Your task to perform on an android device: What's the latest video from Game Informer? Image 0: 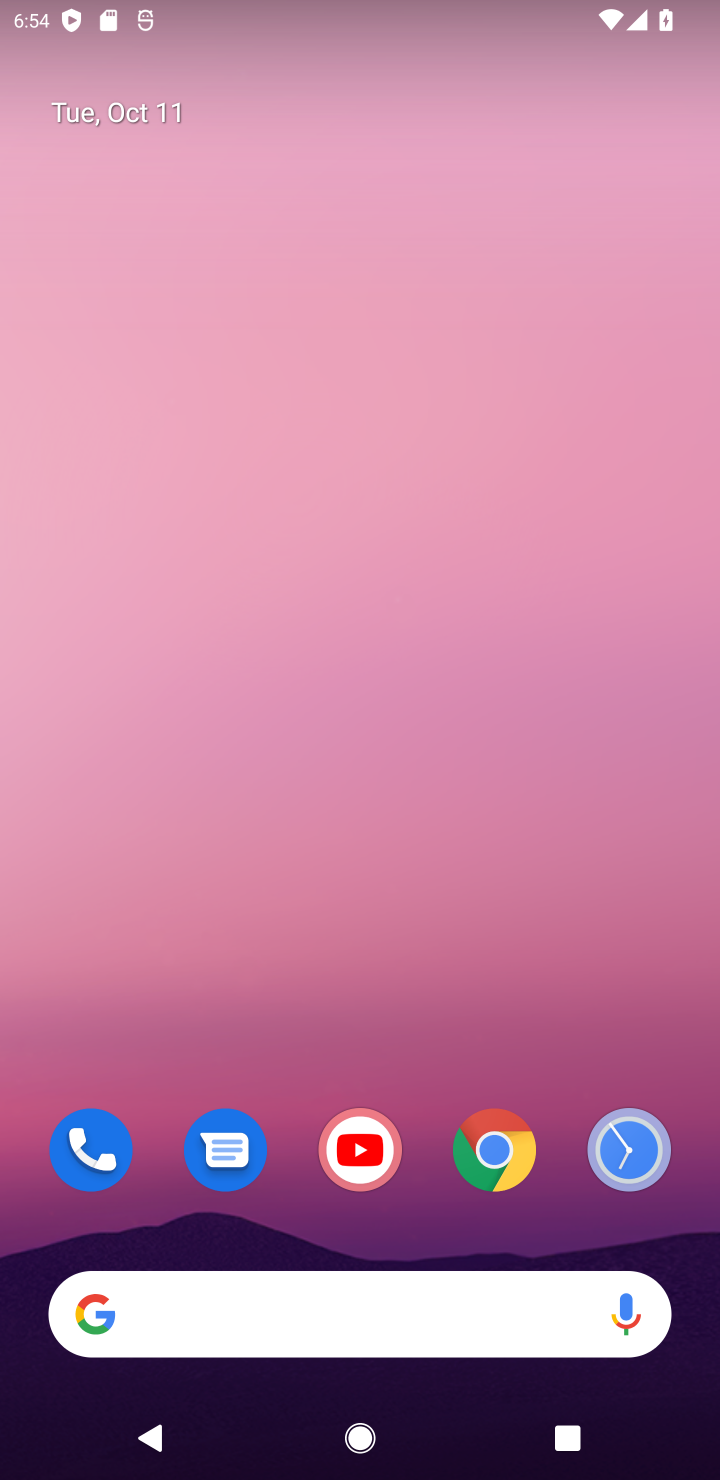
Step 0: click (366, 1158)
Your task to perform on an android device: What's the latest video from Game Informer? Image 1: 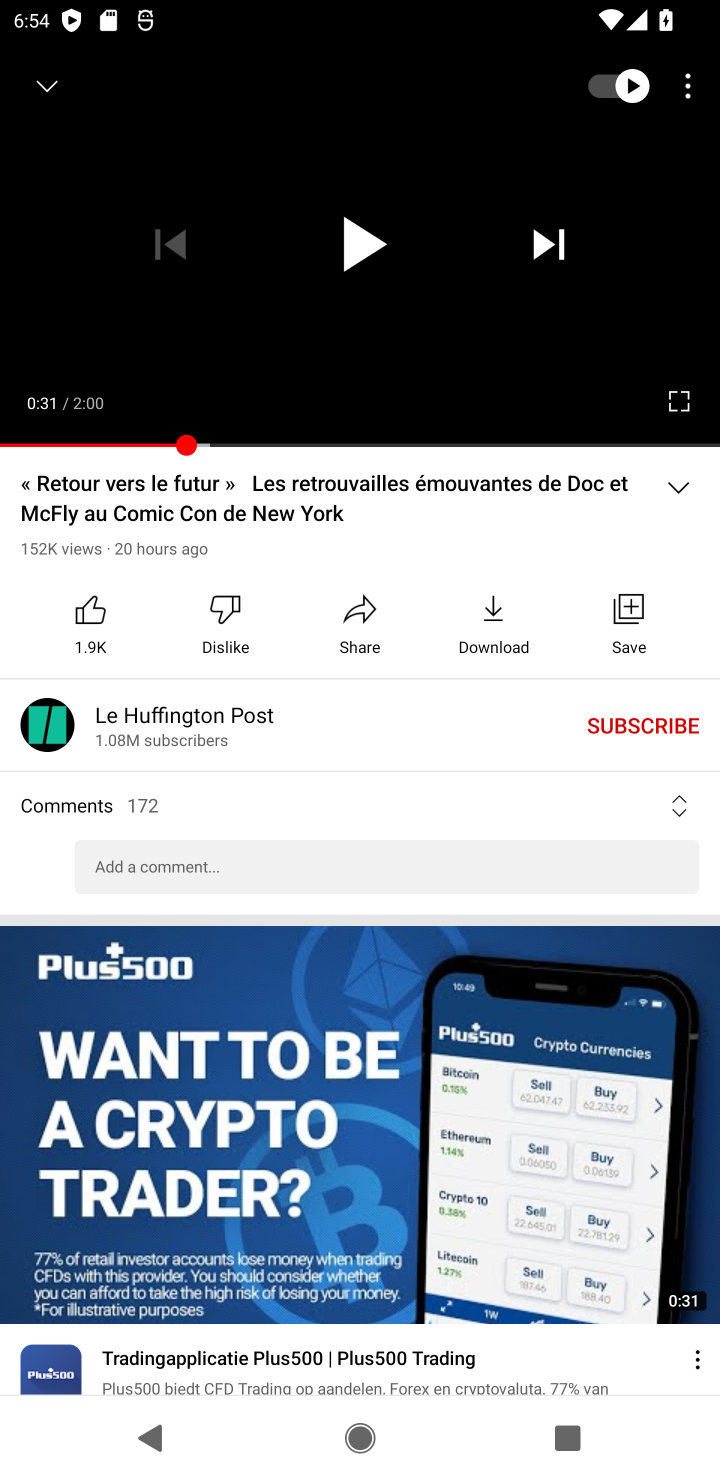
Step 1: click (48, 99)
Your task to perform on an android device: What's the latest video from Game Informer? Image 2: 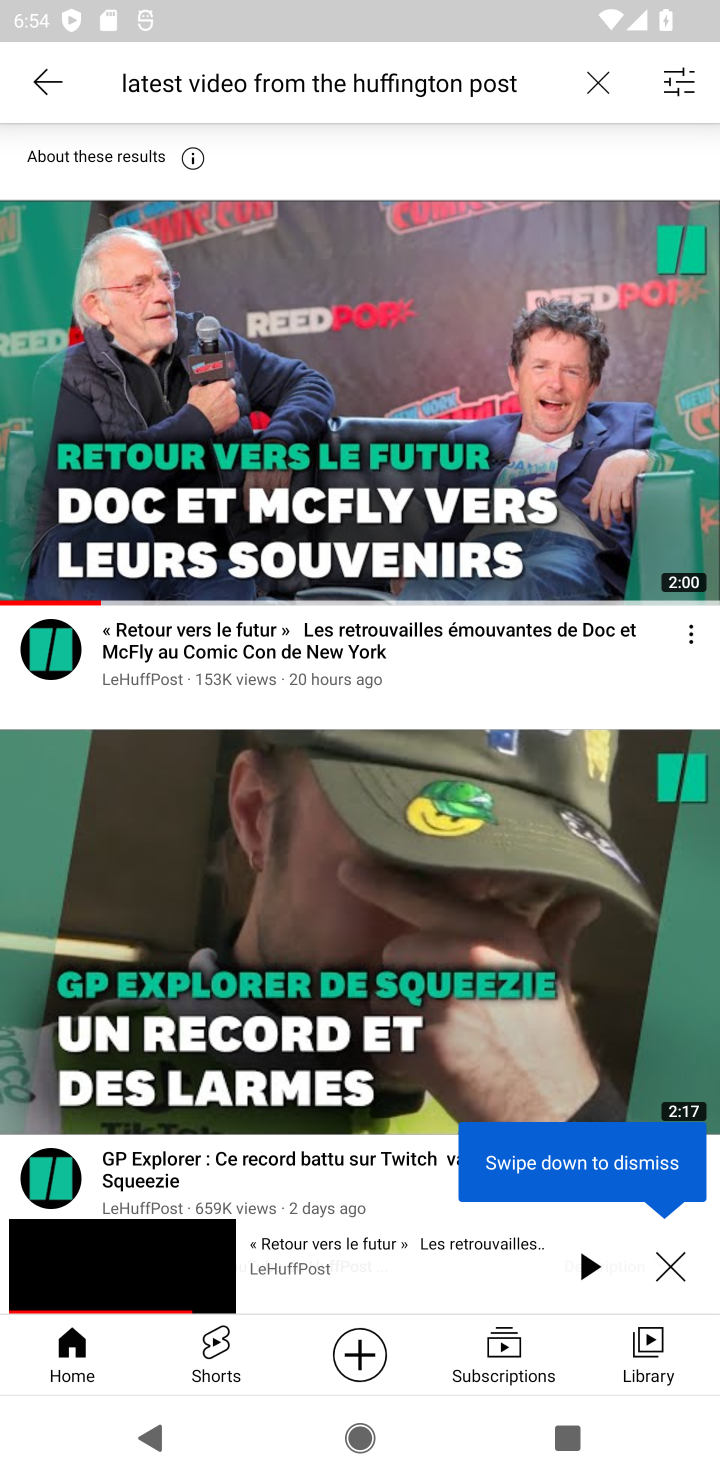
Step 2: click (590, 83)
Your task to perform on an android device: What's the latest video from Game Informer? Image 3: 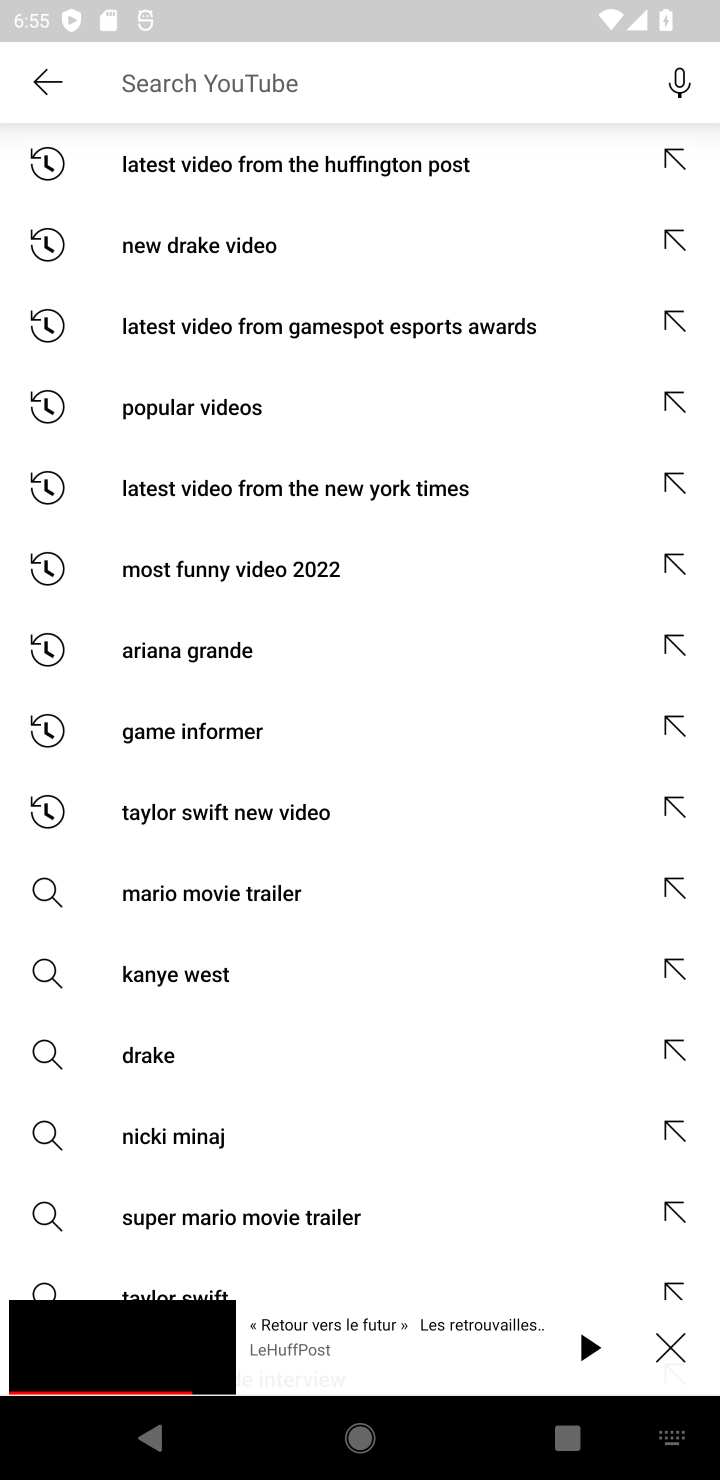
Step 3: type " latest video from Game Informer"
Your task to perform on an android device: What's the latest video from Game Informer? Image 4: 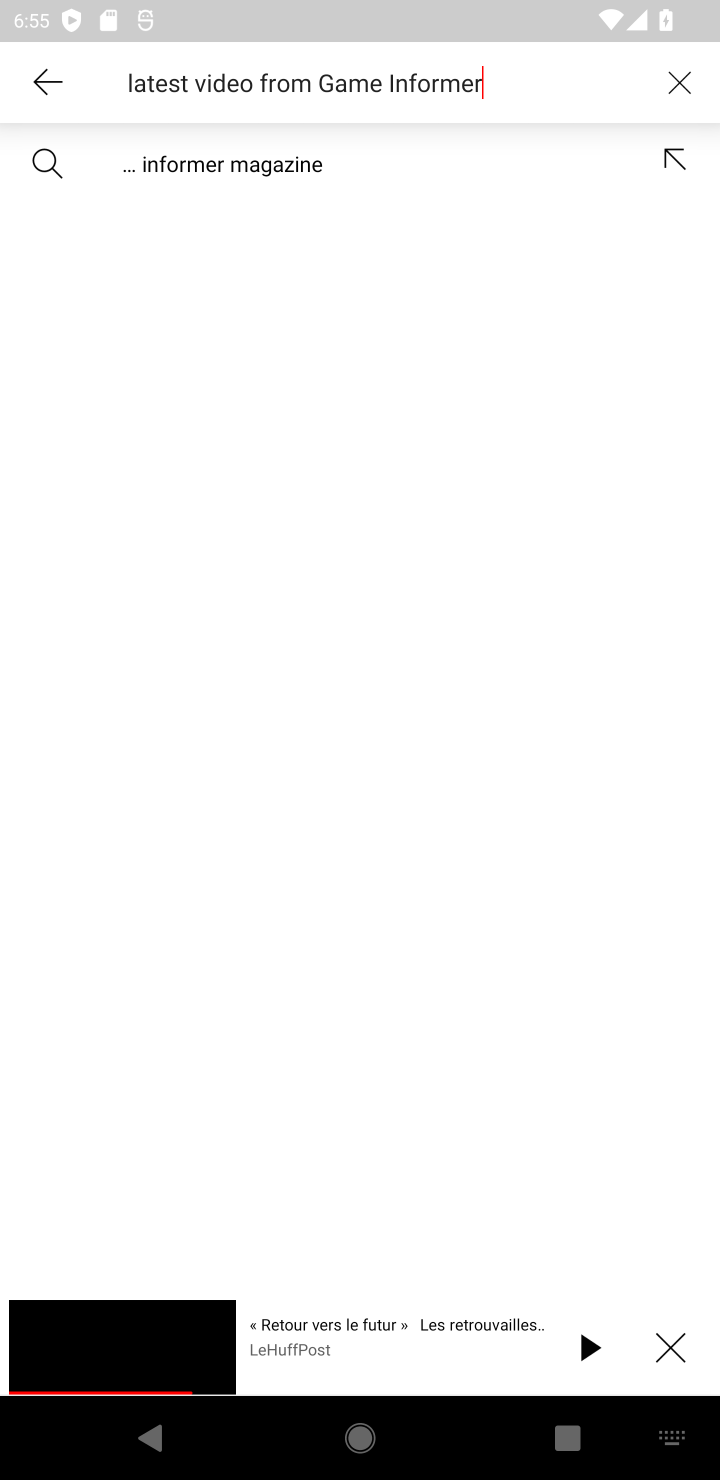
Step 4: click (220, 168)
Your task to perform on an android device: What's the latest video from Game Informer? Image 5: 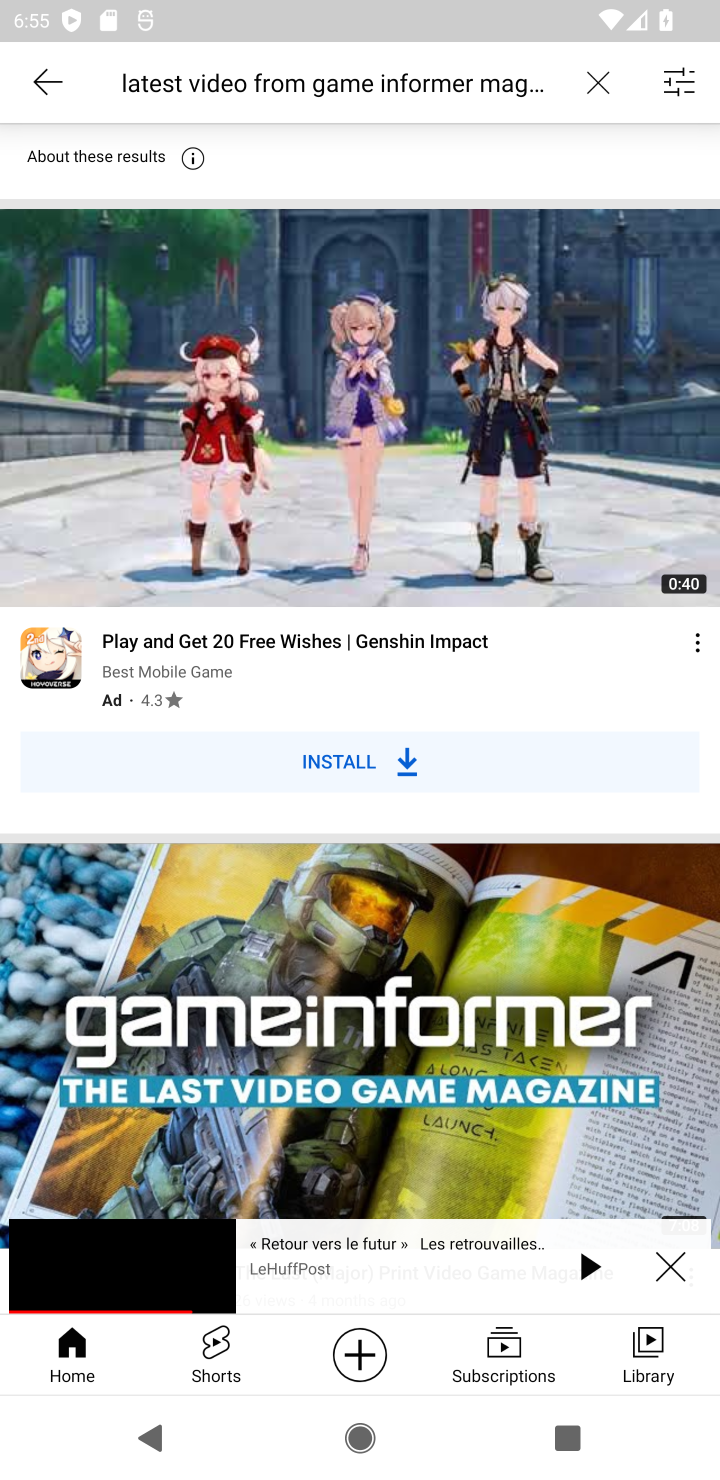
Step 5: drag from (265, 613) to (271, 364)
Your task to perform on an android device: What's the latest video from Game Informer? Image 6: 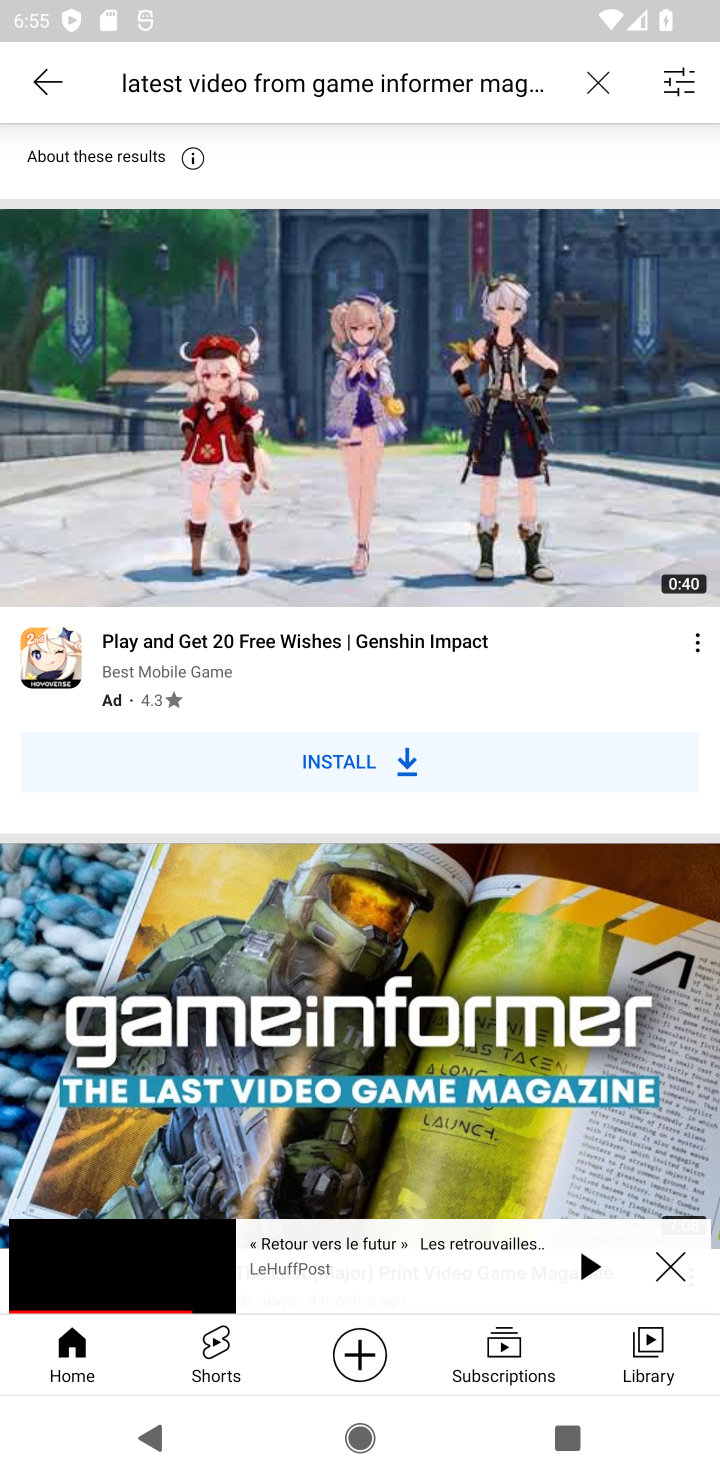
Step 6: click (285, 1057)
Your task to perform on an android device: What's the latest video from Game Informer? Image 7: 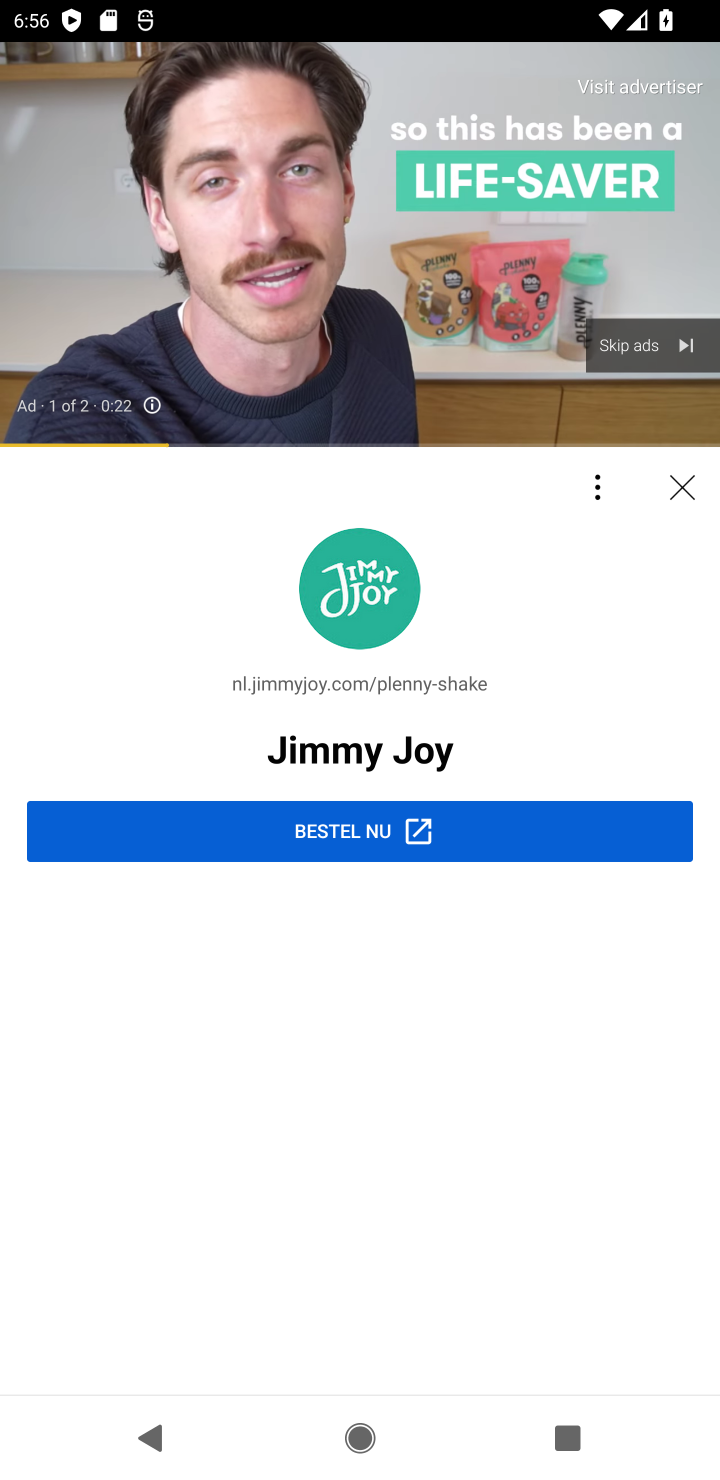
Step 7: click (650, 343)
Your task to perform on an android device: What's the latest video from Game Informer? Image 8: 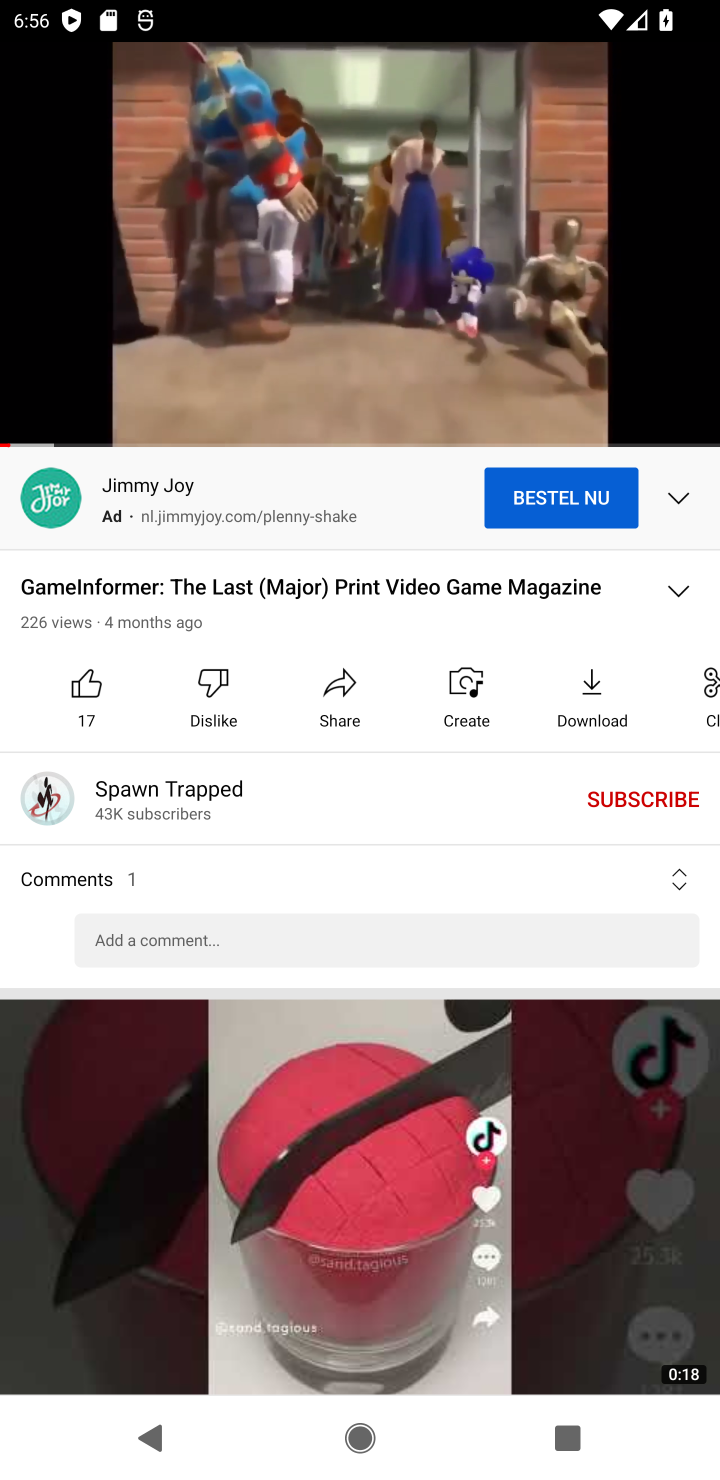
Step 8: click (349, 274)
Your task to perform on an android device: What's the latest video from Game Informer? Image 9: 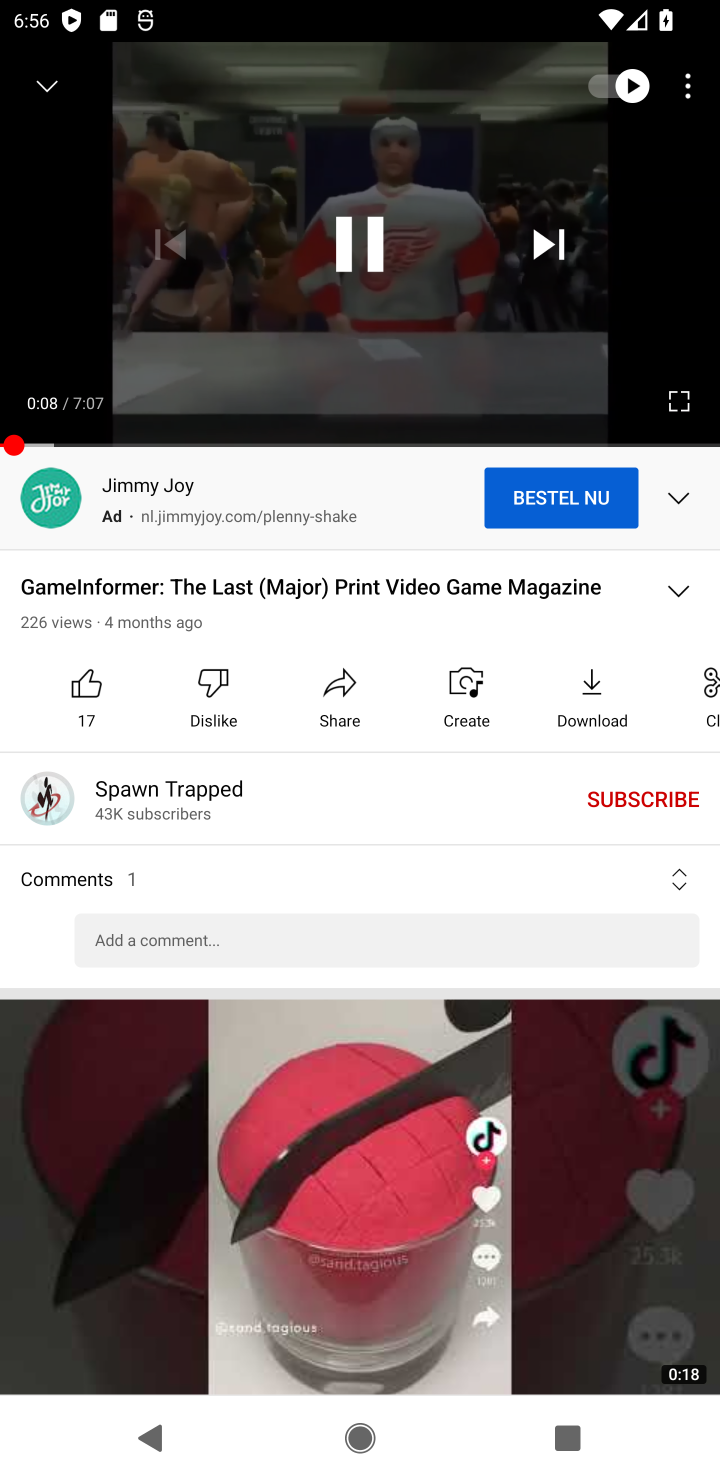
Step 9: click (354, 265)
Your task to perform on an android device: What's the latest video from Game Informer? Image 10: 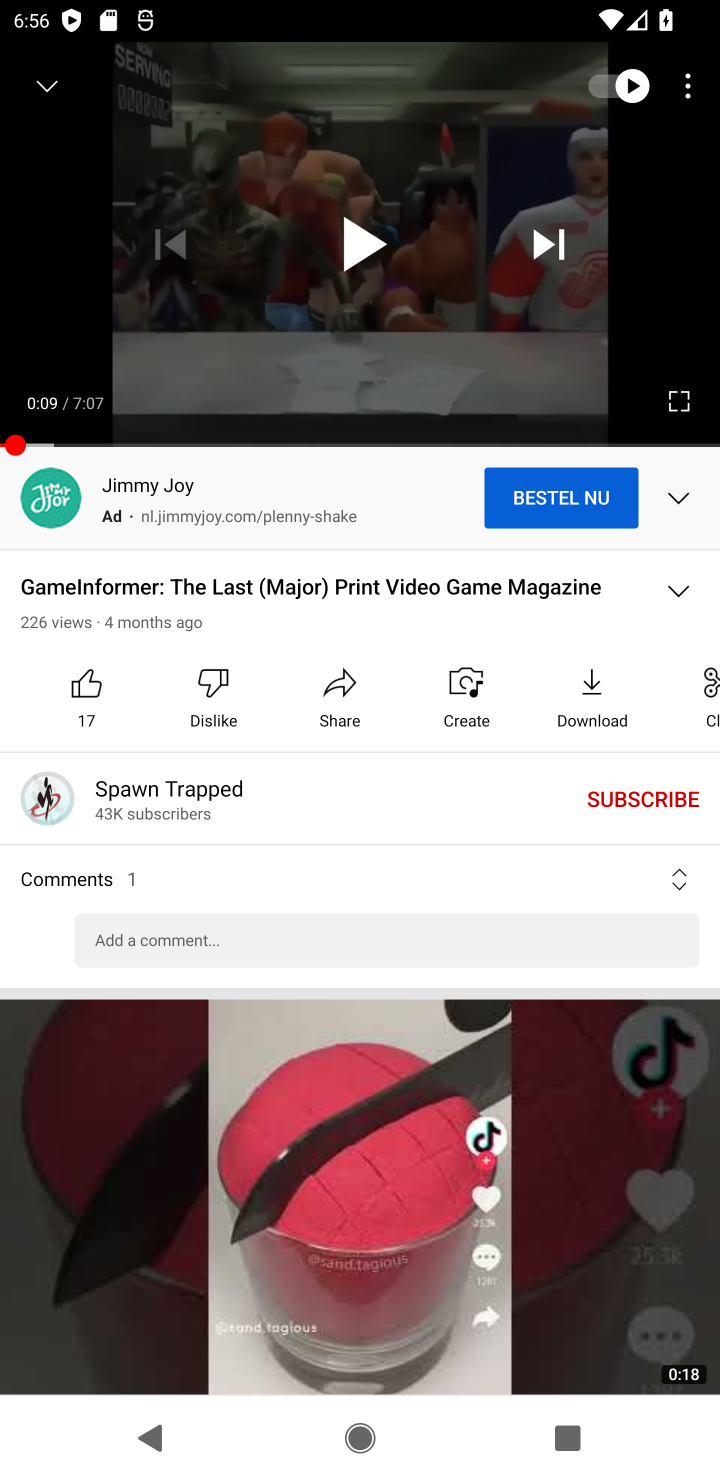
Step 10: task complete